Your task to perform on an android device: turn on priority inbox in the gmail app Image 0: 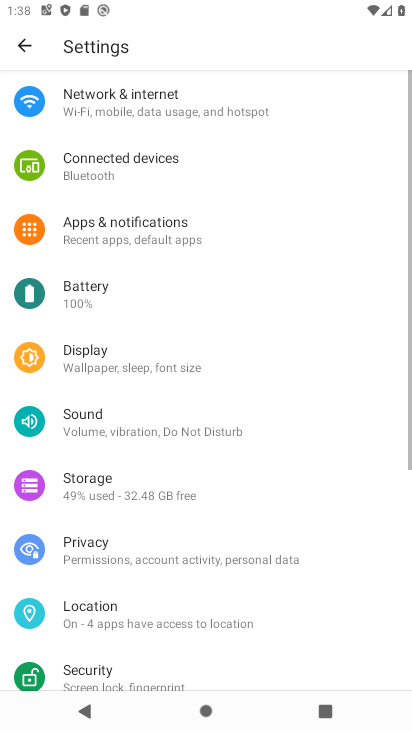
Step 0: press home button
Your task to perform on an android device: turn on priority inbox in the gmail app Image 1: 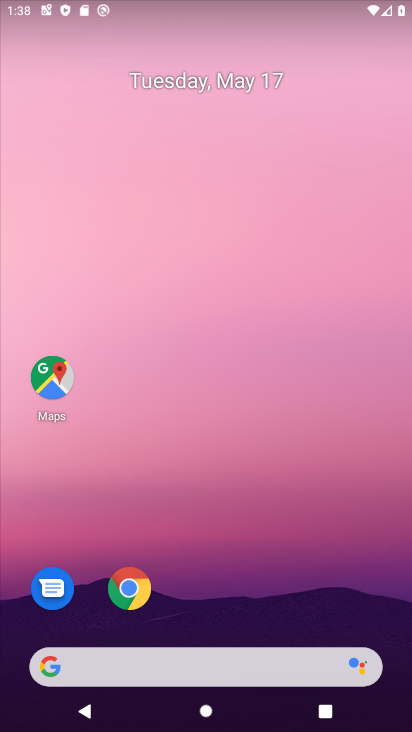
Step 1: drag from (99, 153) to (71, 24)
Your task to perform on an android device: turn on priority inbox in the gmail app Image 2: 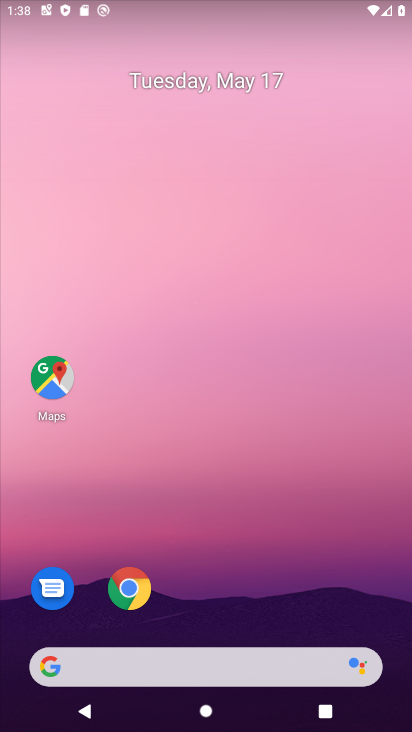
Step 2: drag from (271, 602) to (230, 57)
Your task to perform on an android device: turn on priority inbox in the gmail app Image 3: 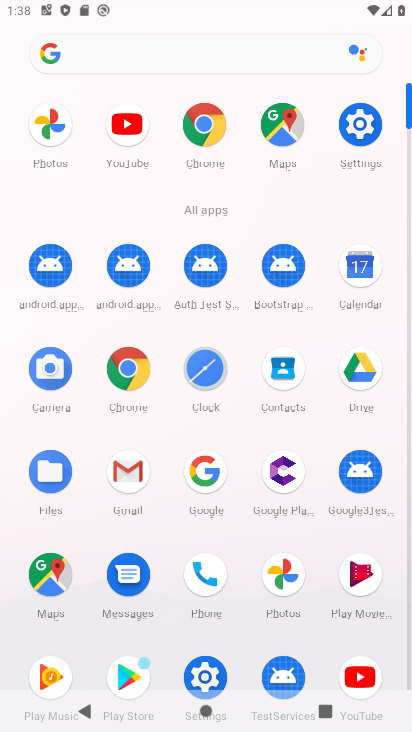
Step 3: click (132, 473)
Your task to perform on an android device: turn on priority inbox in the gmail app Image 4: 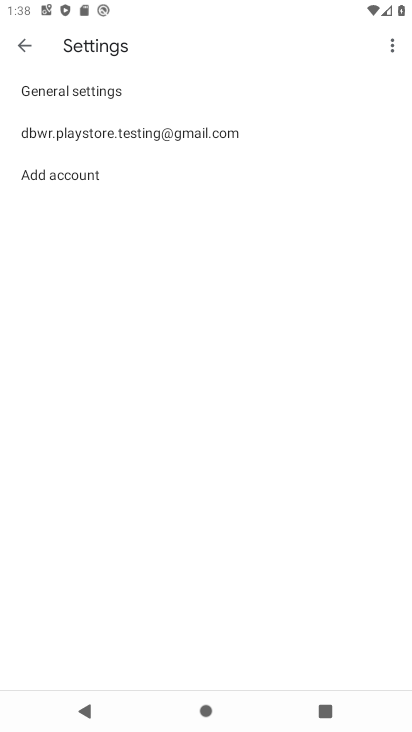
Step 4: click (104, 138)
Your task to perform on an android device: turn on priority inbox in the gmail app Image 5: 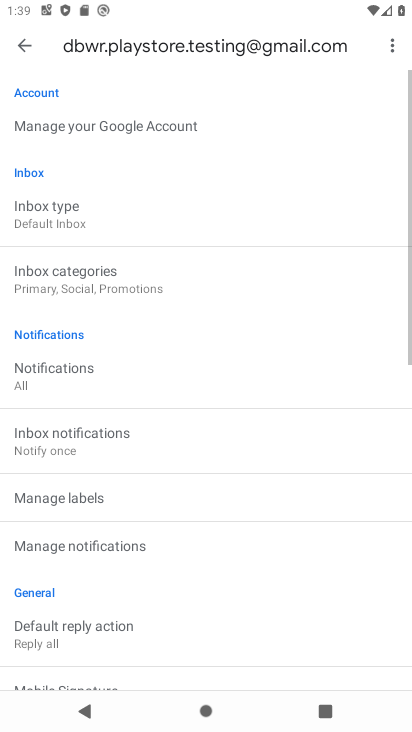
Step 5: click (96, 225)
Your task to perform on an android device: turn on priority inbox in the gmail app Image 6: 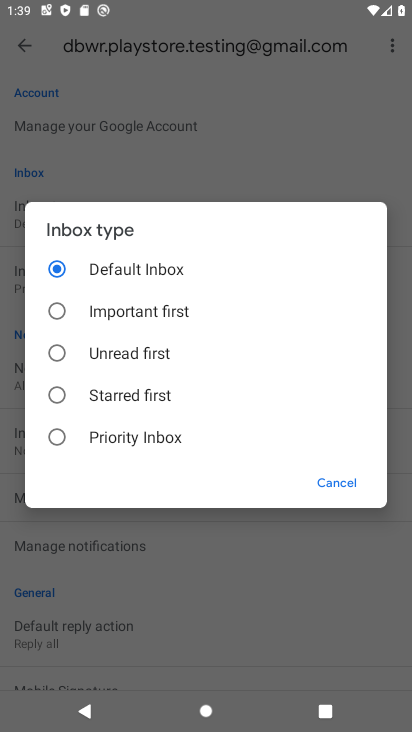
Step 6: click (92, 442)
Your task to perform on an android device: turn on priority inbox in the gmail app Image 7: 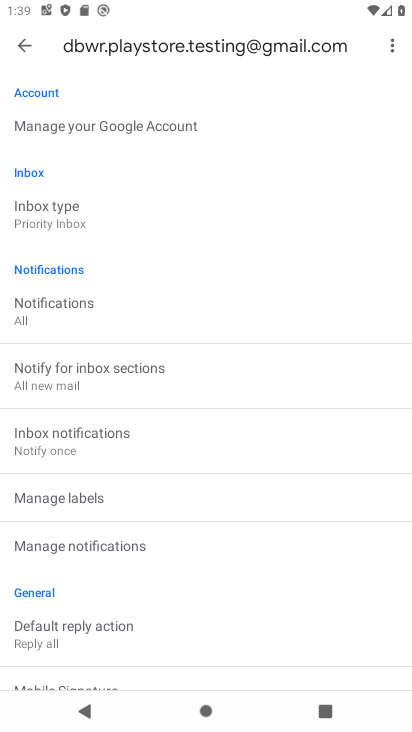
Step 7: task complete